Your task to perform on an android device: change the clock display to digital Image 0: 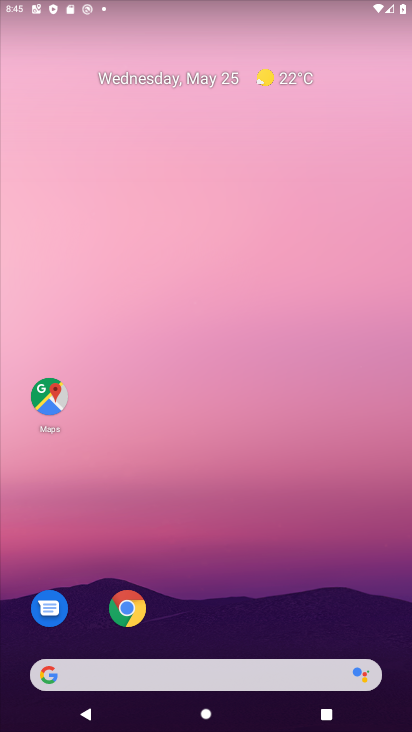
Step 0: drag from (240, 619) to (189, 48)
Your task to perform on an android device: change the clock display to digital Image 1: 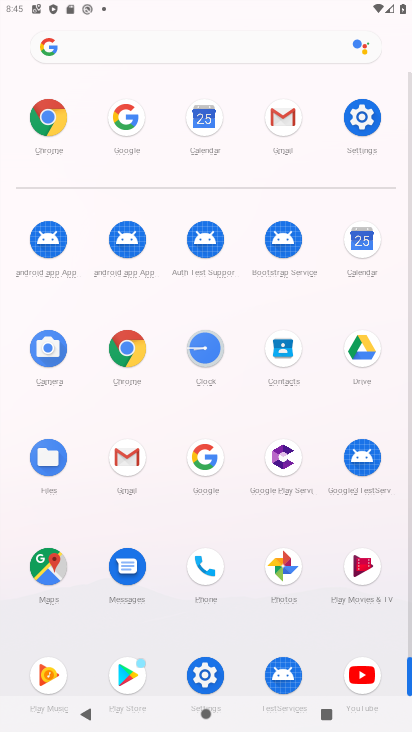
Step 1: click (207, 349)
Your task to perform on an android device: change the clock display to digital Image 2: 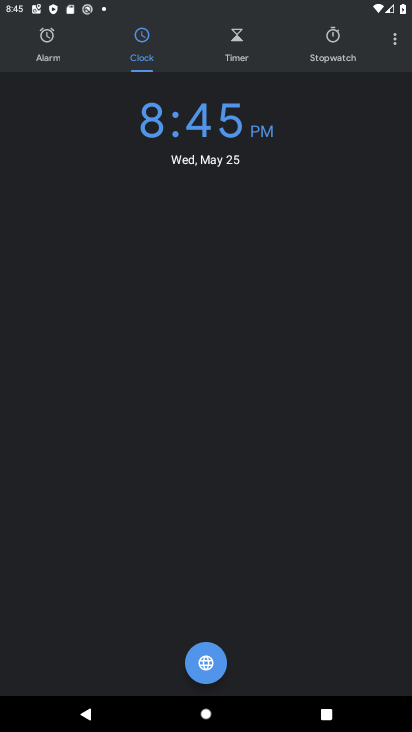
Step 2: click (393, 41)
Your task to perform on an android device: change the clock display to digital Image 3: 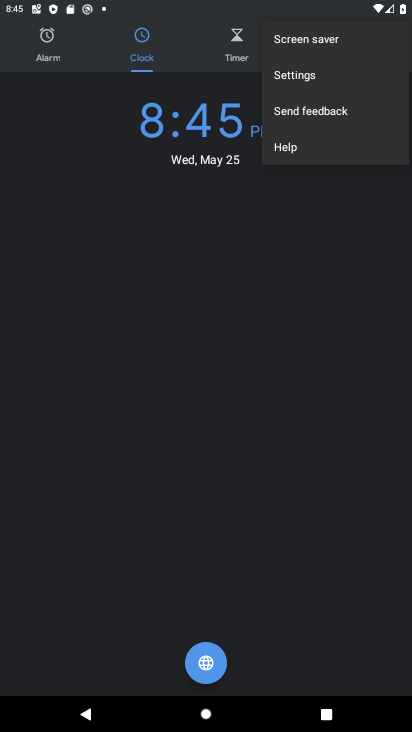
Step 3: click (313, 83)
Your task to perform on an android device: change the clock display to digital Image 4: 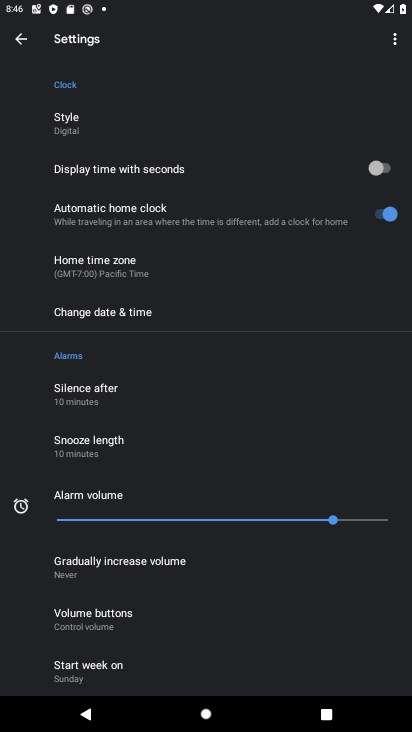
Step 4: click (92, 122)
Your task to perform on an android device: change the clock display to digital Image 5: 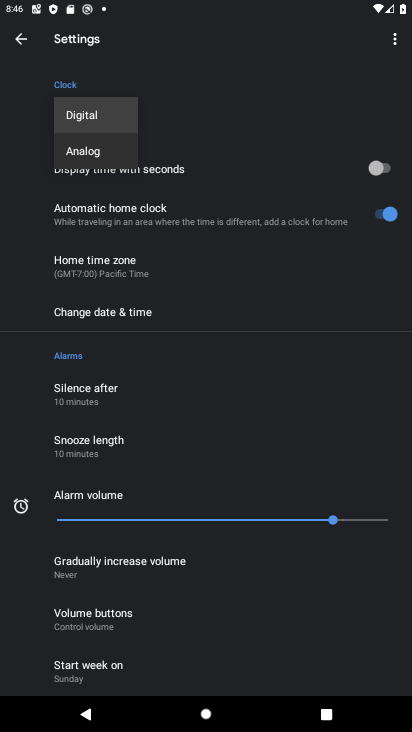
Step 5: click (92, 122)
Your task to perform on an android device: change the clock display to digital Image 6: 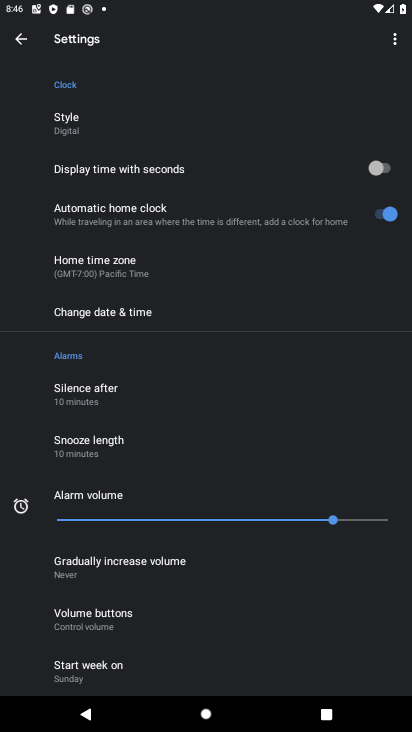
Step 6: task complete